Your task to perform on an android device: open app "Facebook Lite" (install if not already installed) and go to login screen Image 0: 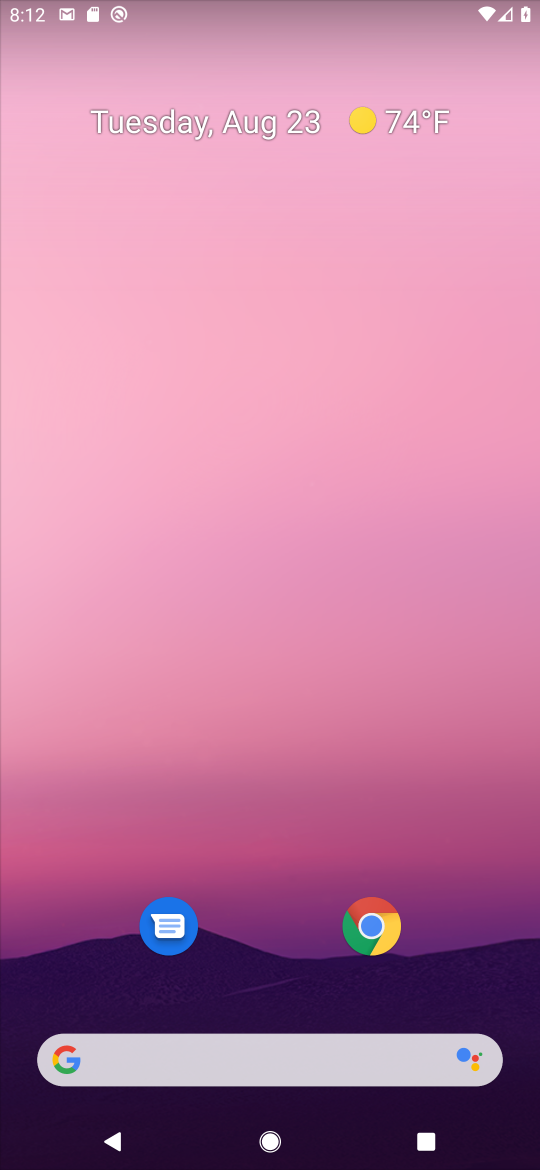
Step 0: drag from (243, 923) to (468, 7)
Your task to perform on an android device: open app "Facebook Lite" (install if not already installed) and go to login screen Image 1: 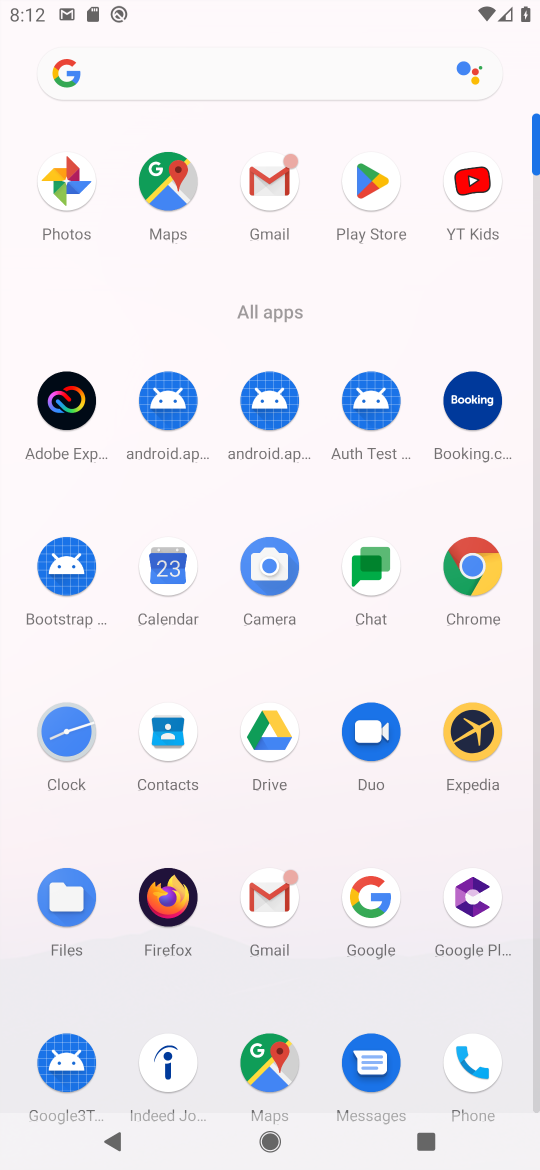
Step 1: click (383, 207)
Your task to perform on an android device: open app "Facebook Lite" (install if not already installed) and go to login screen Image 2: 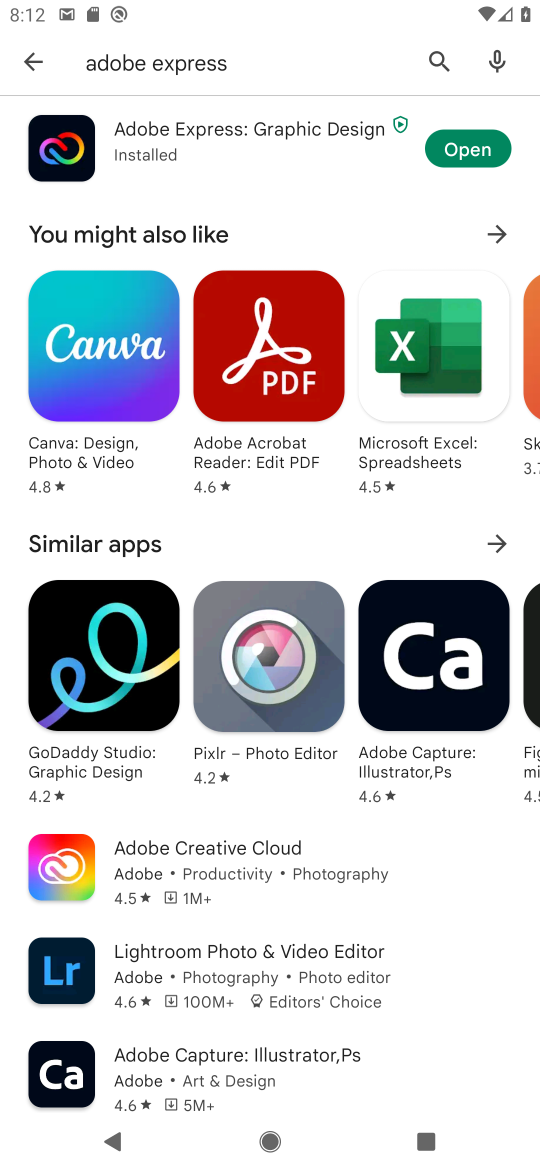
Step 2: click (216, 60)
Your task to perform on an android device: open app "Facebook Lite" (install if not already installed) and go to login screen Image 3: 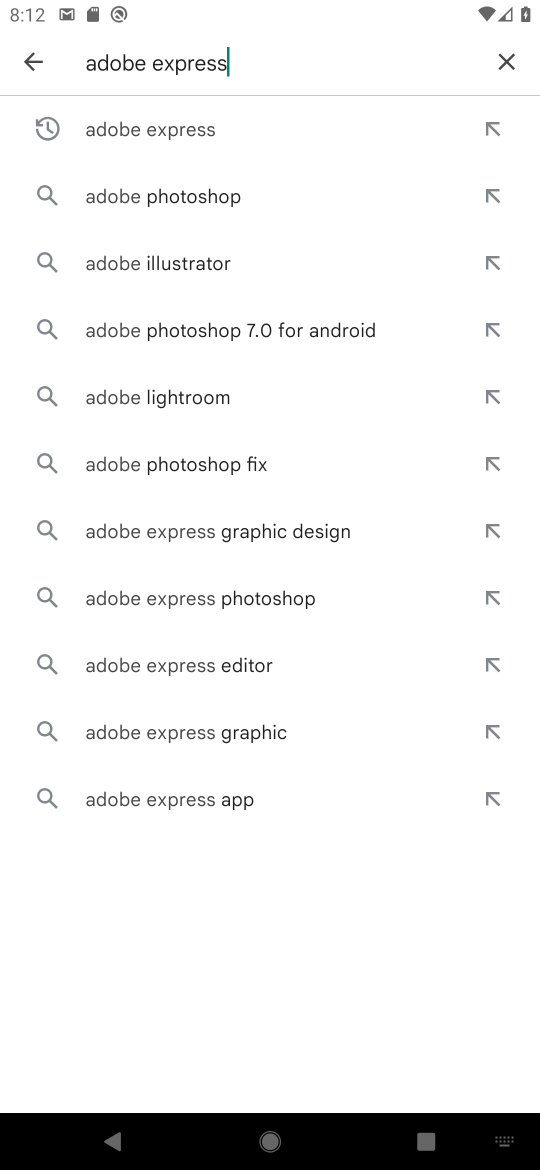
Step 3: click (508, 56)
Your task to perform on an android device: open app "Facebook Lite" (install if not already installed) and go to login screen Image 4: 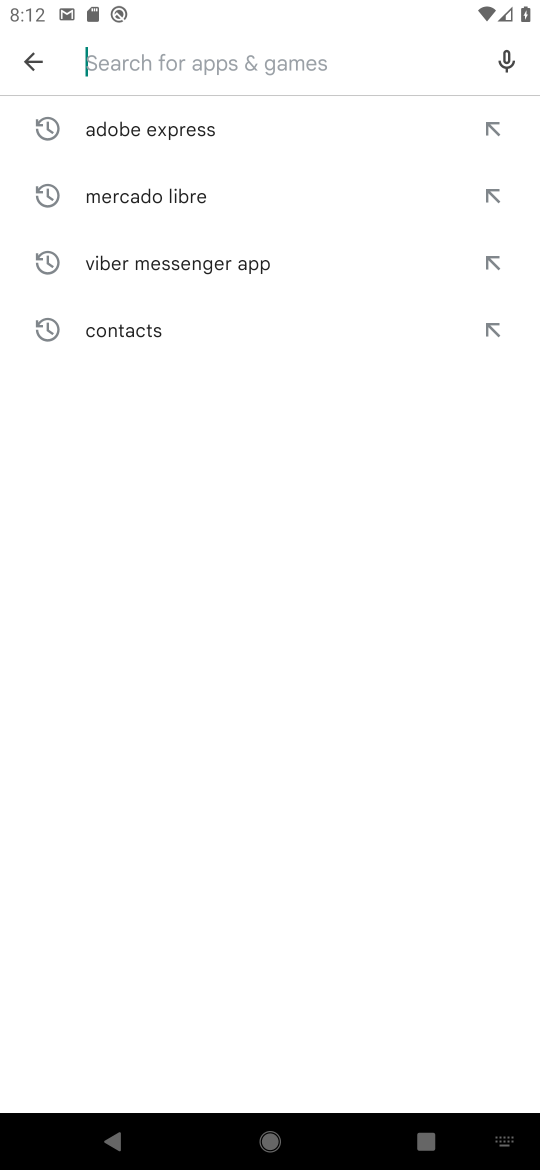
Step 4: type "facebook lite"
Your task to perform on an android device: open app "Facebook Lite" (install if not already installed) and go to login screen Image 5: 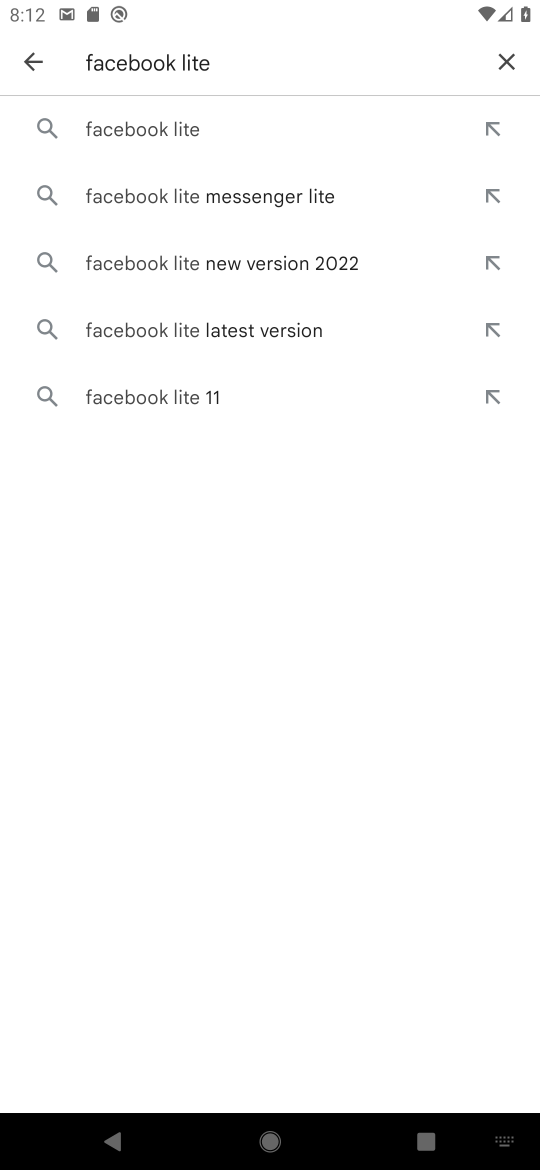
Step 5: click (175, 135)
Your task to perform on an android device: open app "Facebook Lite" (install if not already installed) and go to login screen Image 6: 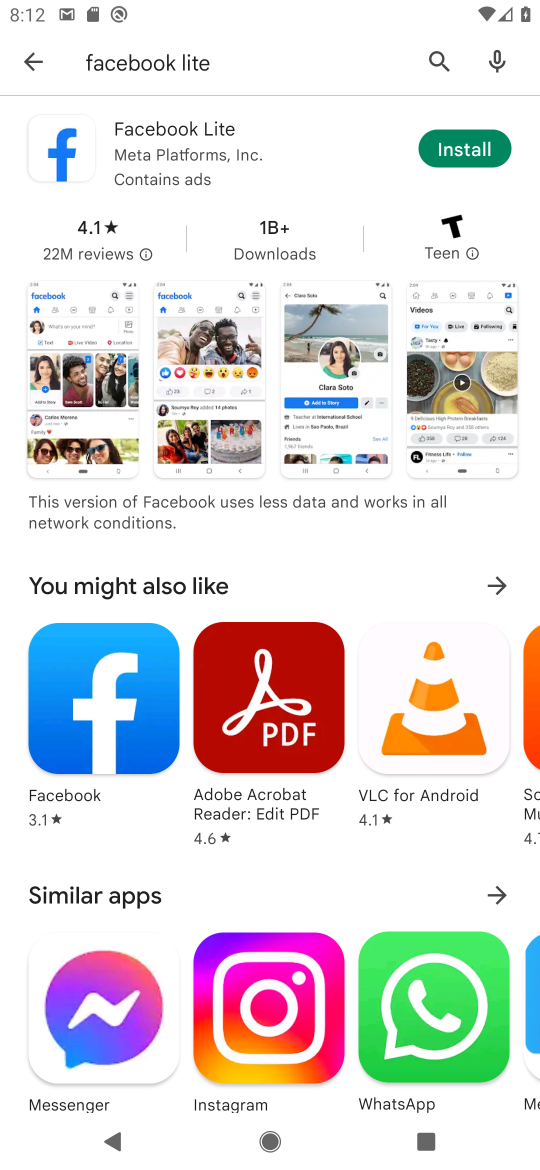
Step 6: click (460, 146)
Your task to perform on an android device: open app "Facebook Lite" (install if not already installed) and go to login screen Image 7: 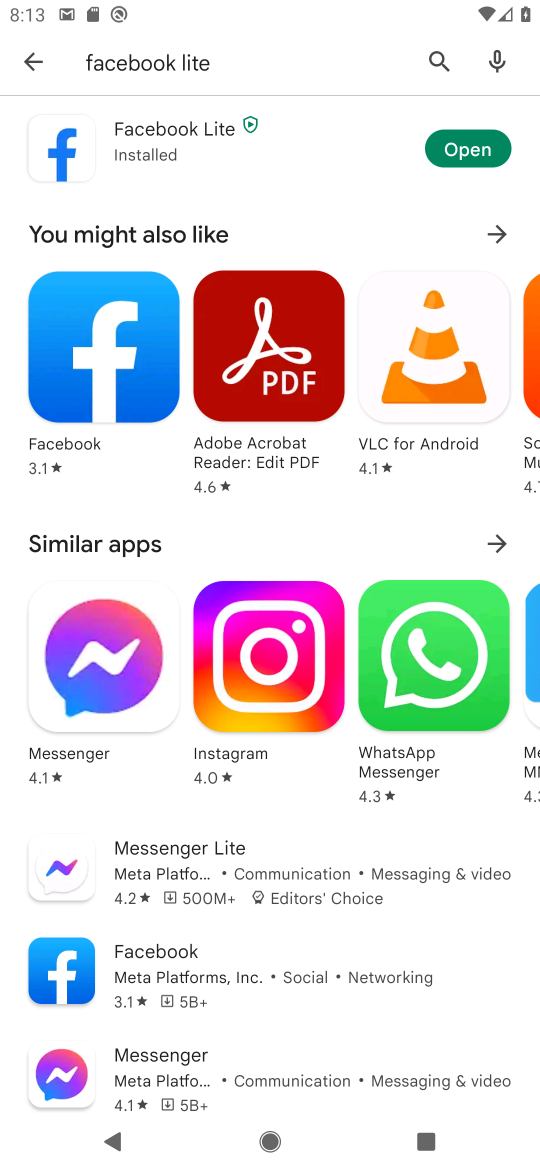
Step 7: click (463, 141)
Your task to perform on an android device: open app "Facebook Lite" (install if not already installed) and go to login screen Image 8: 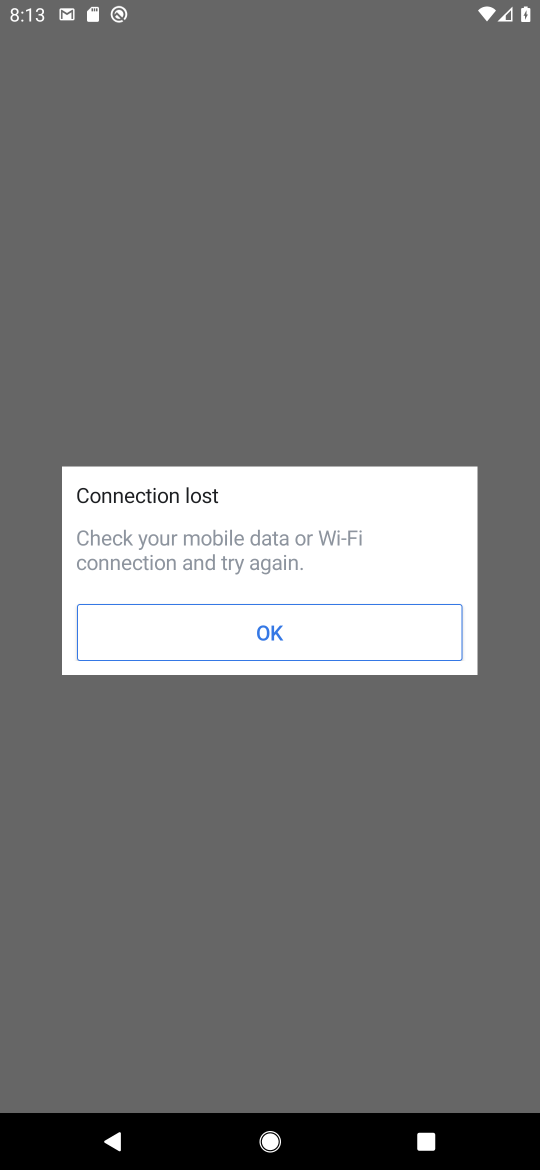
Step 8: click (213, 612)
Your task to perform on an android device: open app "Facebook Lite" (install if not already installed) and go to login screen Image 9: 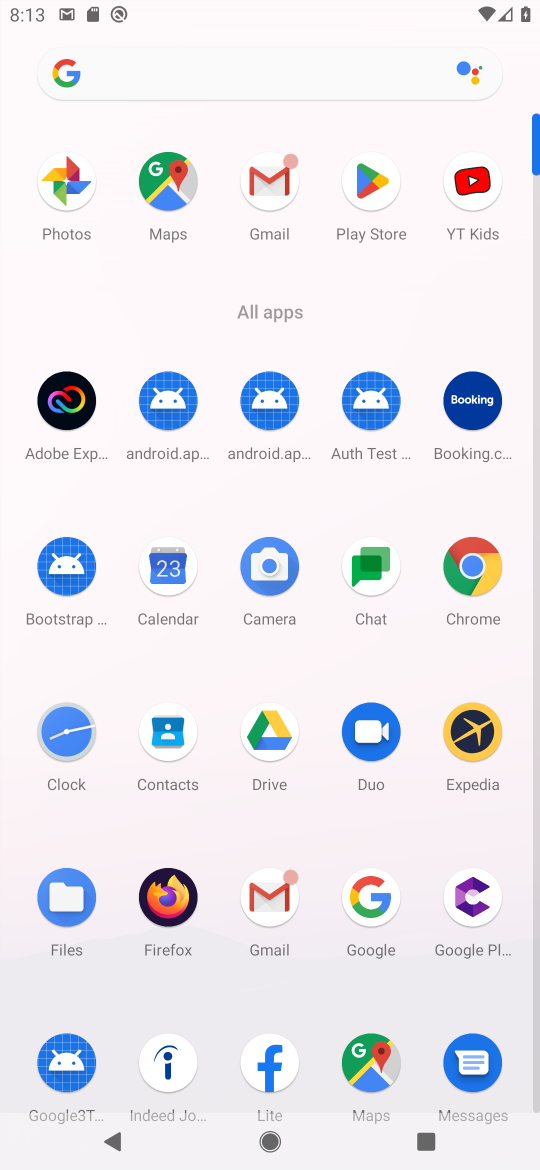
Step 9: task complete